Your task to perform on an android device: Go to accessibility settings Image 0: 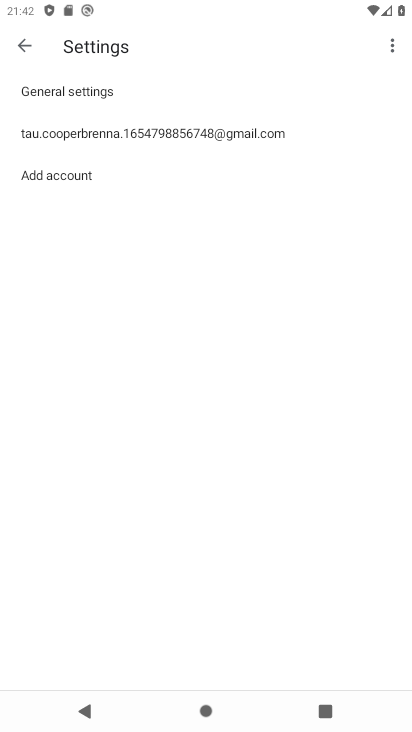
Step 0: press back button
Your task to perform on an android device: Go to accessibility settings Image 1: 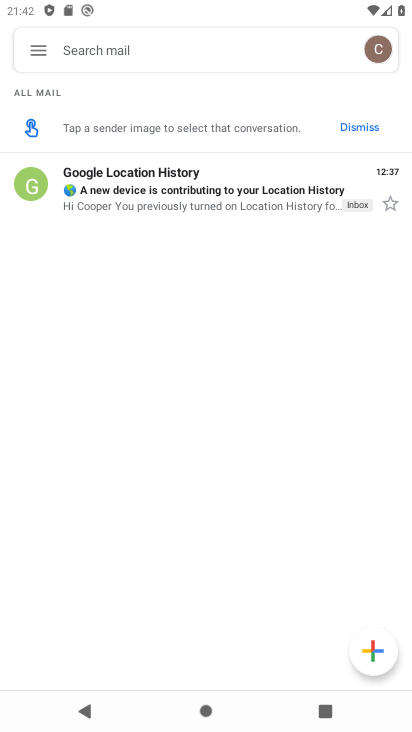
Step 1: press back button
Your task to perform on an android device: Go to accessibility settings Image 2: 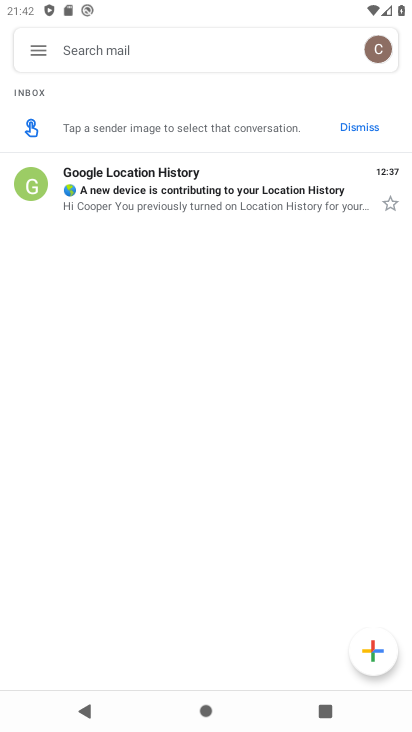
Step 2: press back button
Your task to perform on an android device: Go to accessibility settings Image 3: 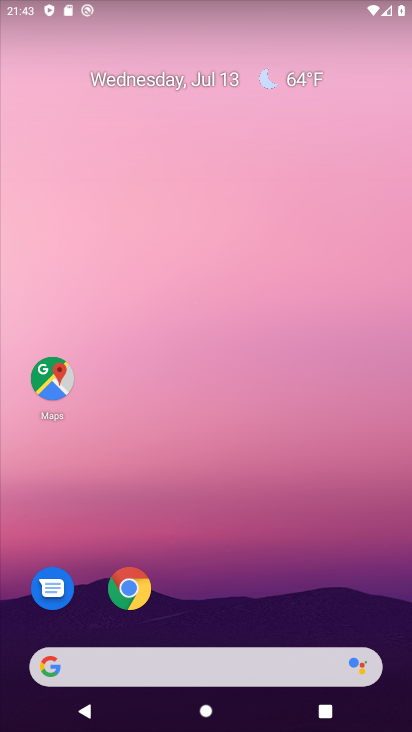
Step 3: drag from (249, 602) to (314, 2)
Your task to perform on an android device: Go to accessibility settings Image 4: 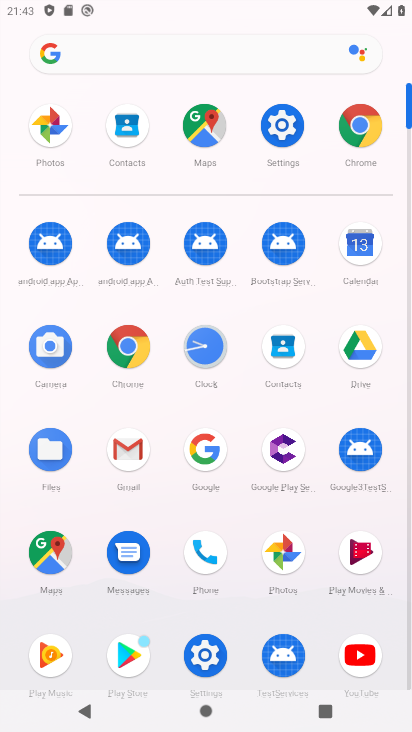
Step 4: click (284, 116)
Your task to perform on an android device: Go to accessibility settings Image 5: 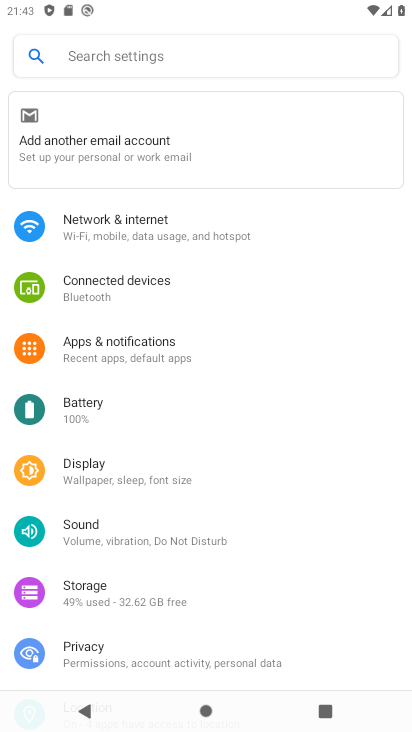
Step 5: drag from (164, 617) to (234, 77)
Your task to perform on an android device: Go to accessibility settings Image 6: 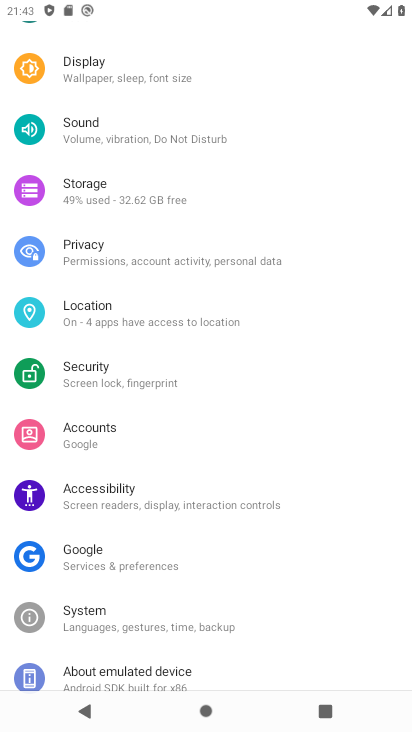
Step 6: click (107, 499)
Your task to perform on an android device: Go to accessibility settings Image 7: 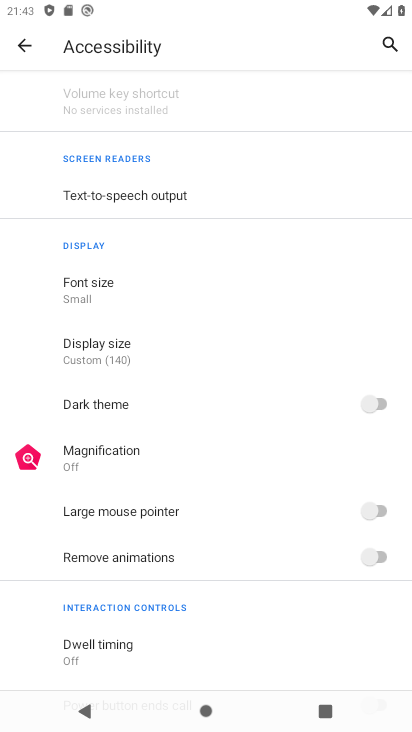
Step 7: task complete